Your task to perform on an android device: Show me productivity apps on the Play Store Image 0: 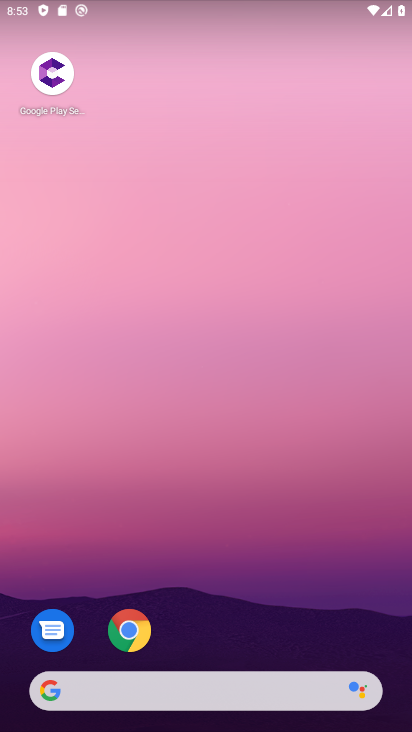
Step 0: drag from (245, 569) to (232, 58)
Your task to perform on an android device: Show me productivity apps on the Play Store Image 1: 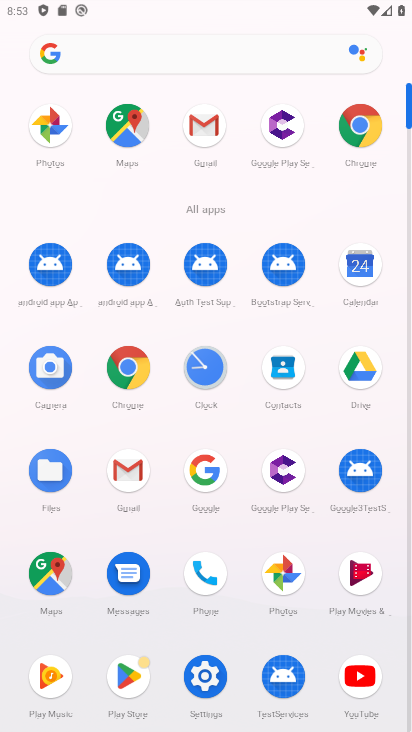
Step 1: click (125, 667)
Your task to perform on an android device: Show me productivity apps on the Play Store Image 2: 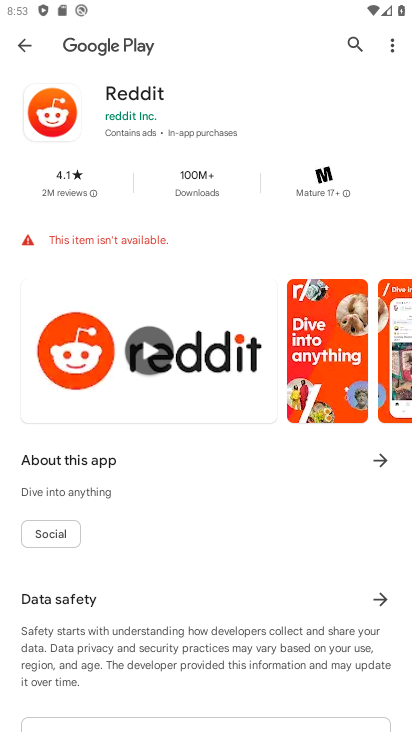
Step 2: click (20, 46)
Your task to perform on an android device: Show me productivity apps on the Play Store Image 3: 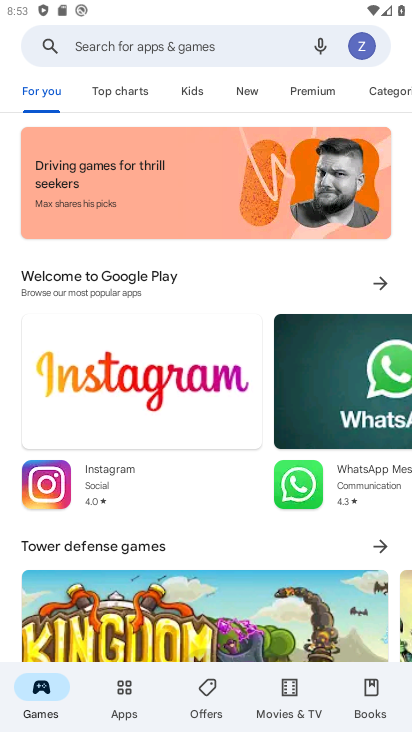
Step 3: click (122, 686)
Your task to perform on an android device: Show me productivity apps on the Play Store Image 4: 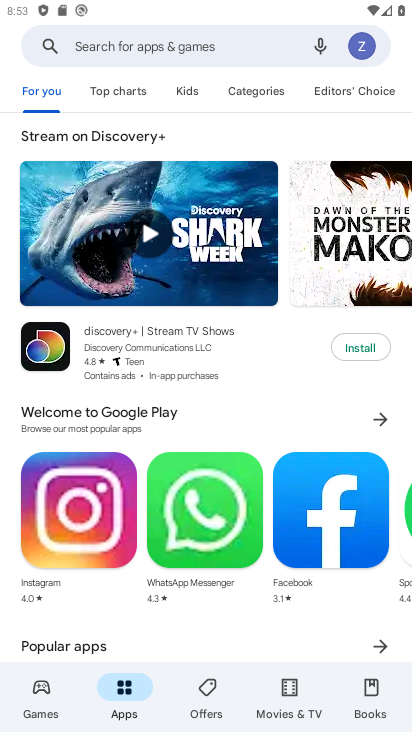
Step 4: task complete